Your task to perform on an android device: Do I have any events tomorrow? Image 0: 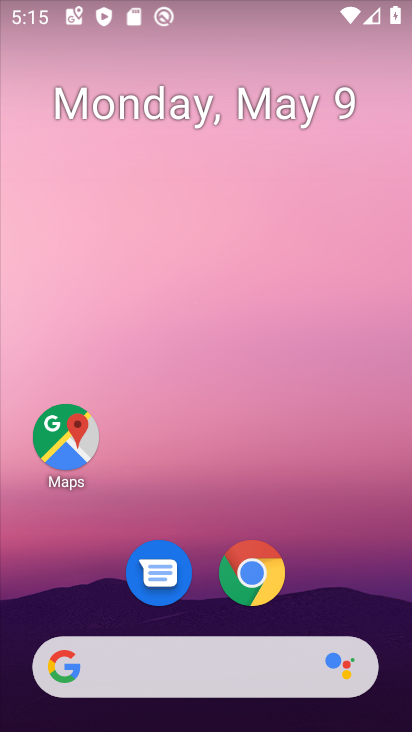
Step 0: drag from (311, 614) to (293, 188)
Your task to perform on an android device: Do I have any events tomorrow? Image 1: 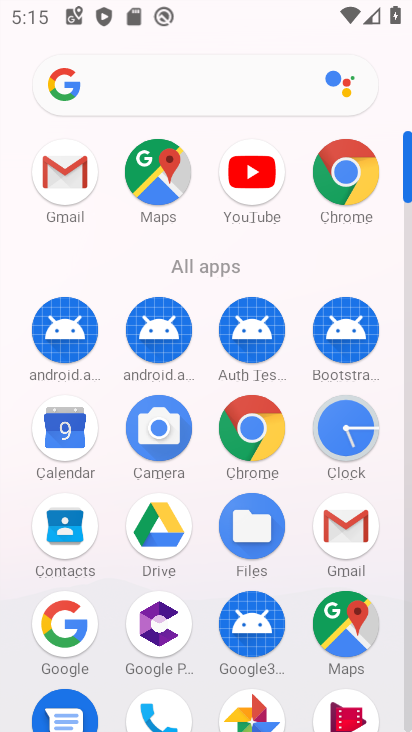
Step 1: click (69, 478)
Your task to perform on an android device: Do I have any events tomorrow? Image 2: 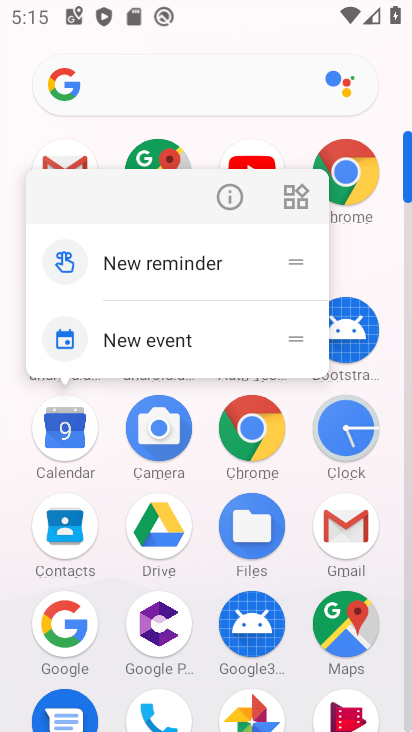
Step 2: click (77, 444)
Your task to perform on an android device: Do I have any events tomorrow? Image 3: 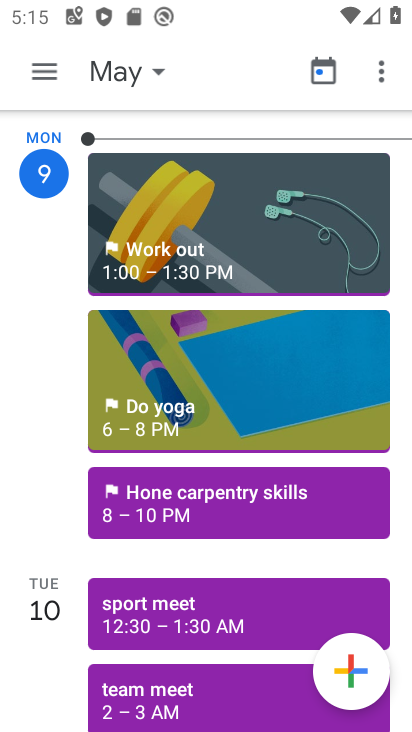
Step 3: click (121, 82)
Your task to perform on an android device: Do I have any events tomorrow? Image 4: 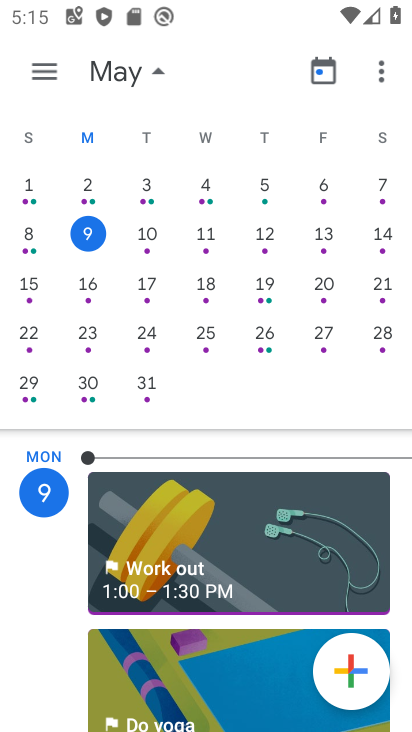
Step 4: click (147, 242)
Your task to perform on an android device: Do I have any events tomorrow? Image 5: 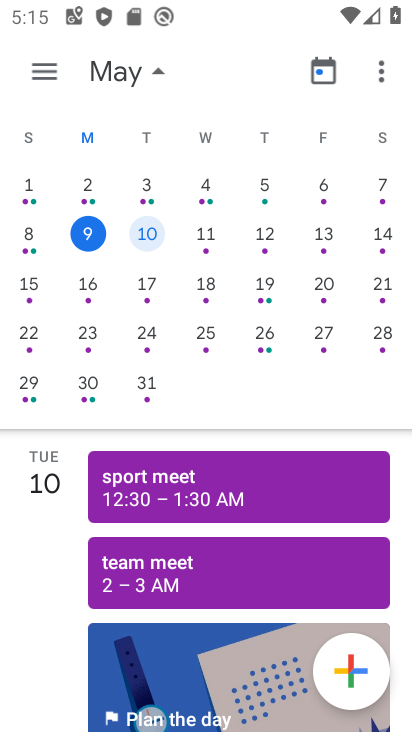
Step 5: task complete